Your task to perform on an android device: open app "Nova Launcher" (install if not already installed) Image 0: 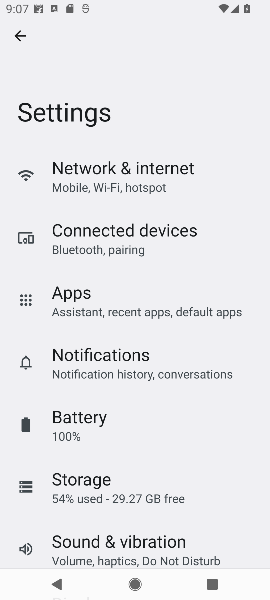
Step 0: press home button
Your task to perform on an android device: open app "Nova Launcher" (install if not already installed) Image 1: 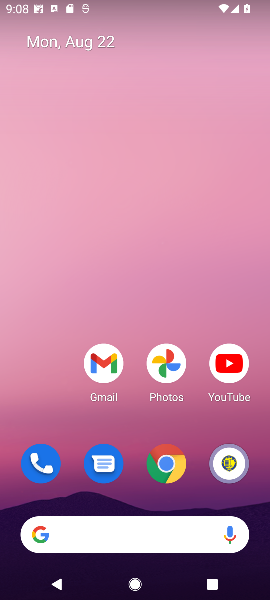
Step 1: drag from (135, 471) to (68, 52)
Your task to perform on an android device: open app "Nova Launcher" (install if not already installed) Image 2: 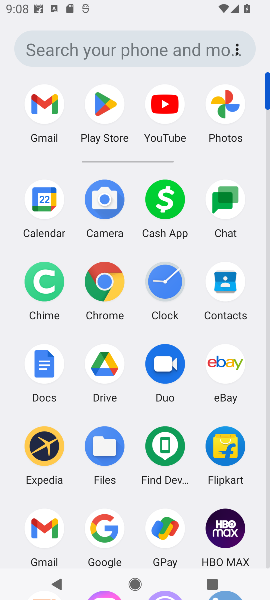
Step 2: click (96, 100)
Your task to perform on an android device: open app "Nova Launcher" (install if not already installed) Image 3: 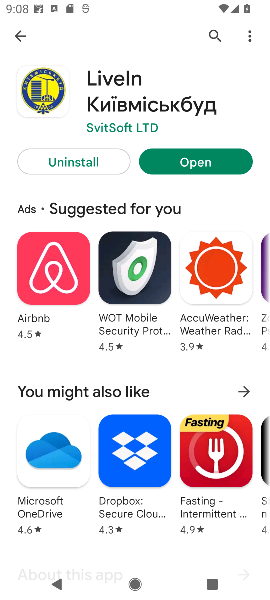
Step 3: click (23, 31)
Your task to perform on an android device: open app "Nova Launcher" (install if not already installed) Image 4: 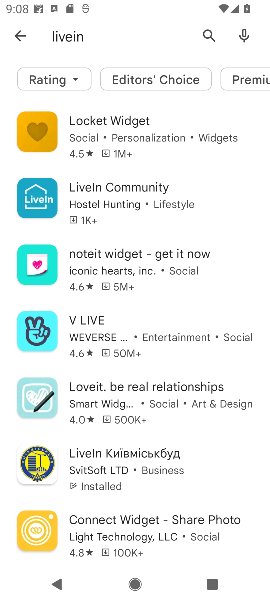
Step 4: click (23, 31)
Your task to perform on an android device: open app "Nova Launcher" (install if not already installed) Image 5: 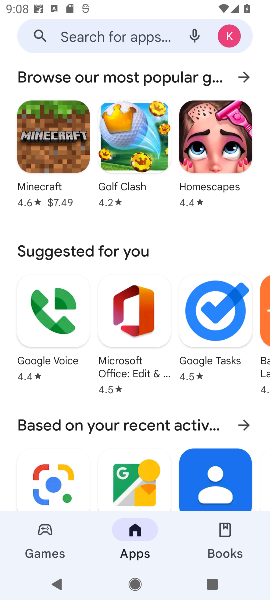
Step 5: click (64, 26)
Your task to perform on an android device: open app "Nova Launcher" (install if not already installed) Image 6: 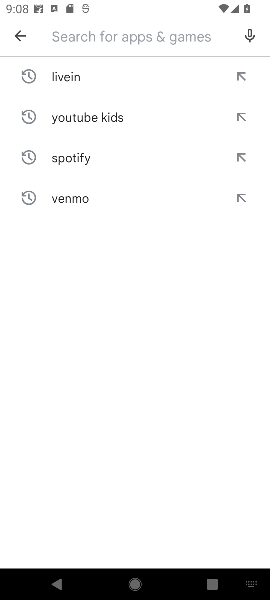
Step 6: type "Nova Launcher"
Your task to perform on an android device: open app "Nova Launcher" (install if not already installed) Image 7: 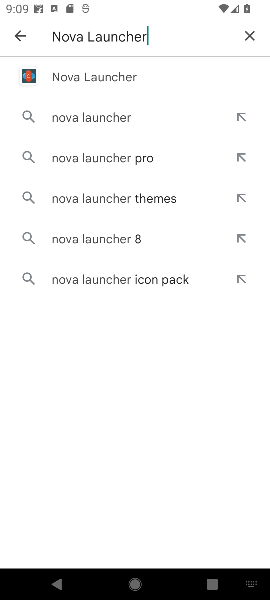
Step 7: click (95, 76)
Your task to perform on an android device: open app "Nova Launcher" (install if not already installed) Image 8: 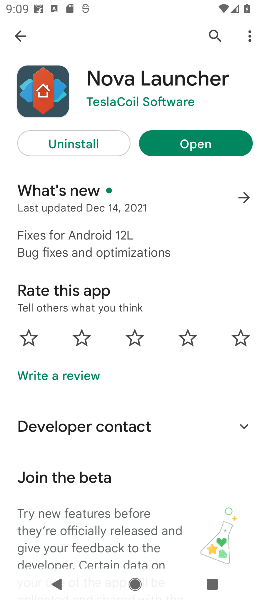
Step 8: click (178, 138)
Your task to perform on an android device: open app "Nova Launcher" (install if not already installed) Image 9: 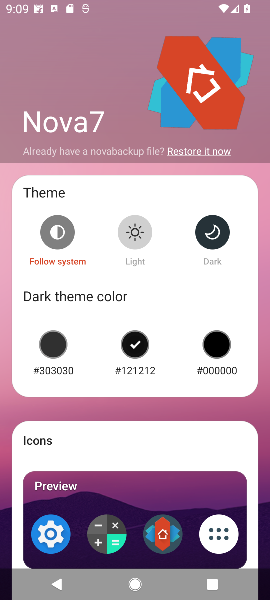
Step 9: task complete